Your task to perform on an android device: Go to Google Image 0: 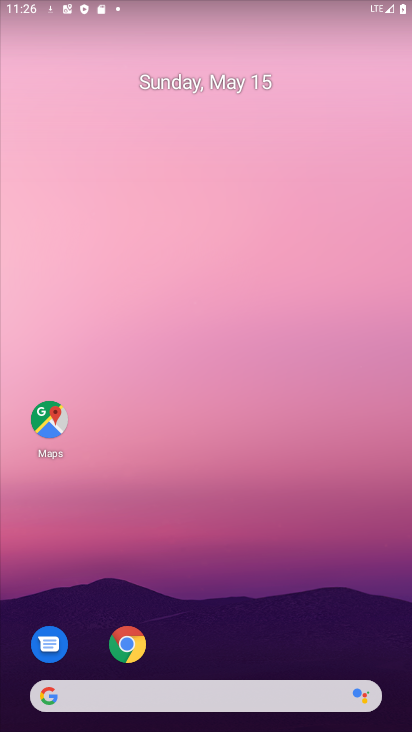
Step 0: drag from (221, 722) to (227, 246)
Your task to perform on an android device: Go to Google Image 1: 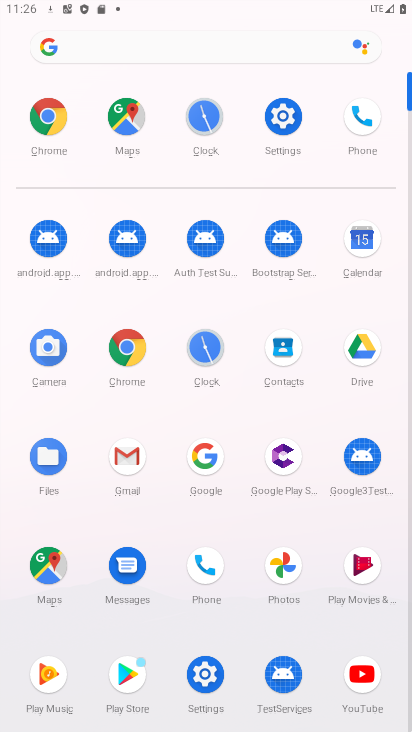
Step 1: click (125, 361)
Your task to perform on an android device: Go to Google Image 2: 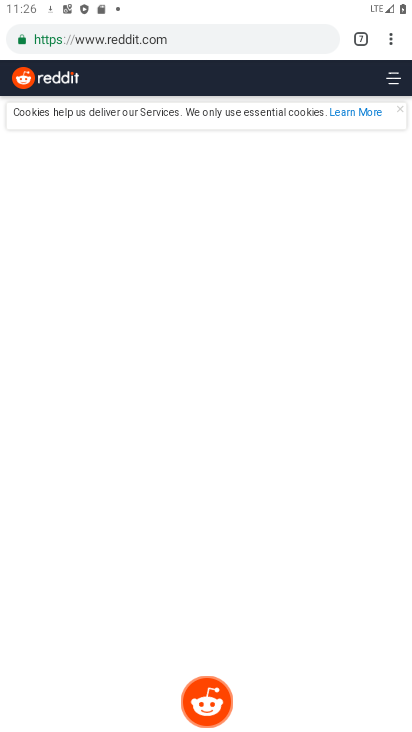
Step 2: click (391, 52)
Your task to perform on an android device: Go to Google Image 3: 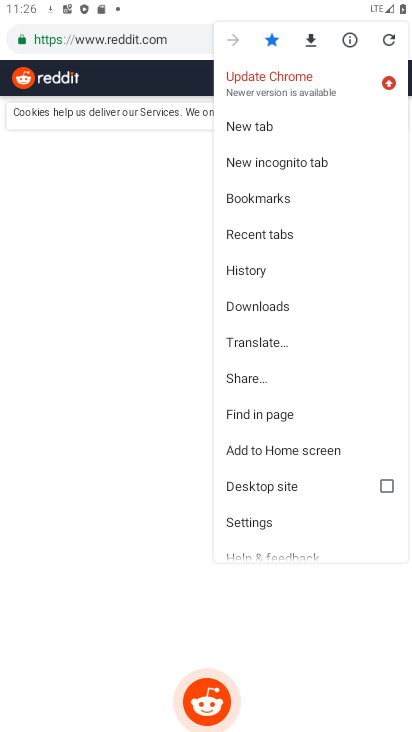
Step 3: click (254, 120)
Your task to perform on an android device: Go to Google Image 4: 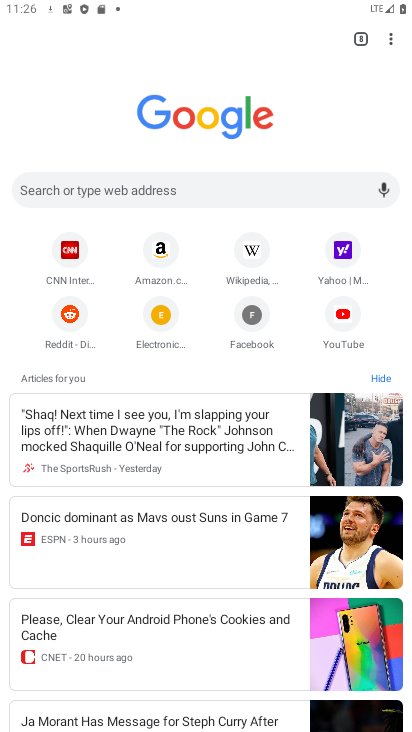
Step 4: task complete